Your task to perform on an android device: show emergency info Image 0: 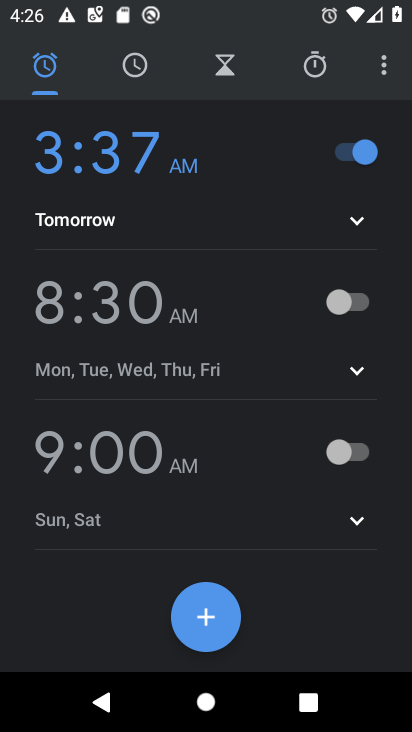
Step 0: press home button
Your task to perform on an android device: show emergency info Image 1: 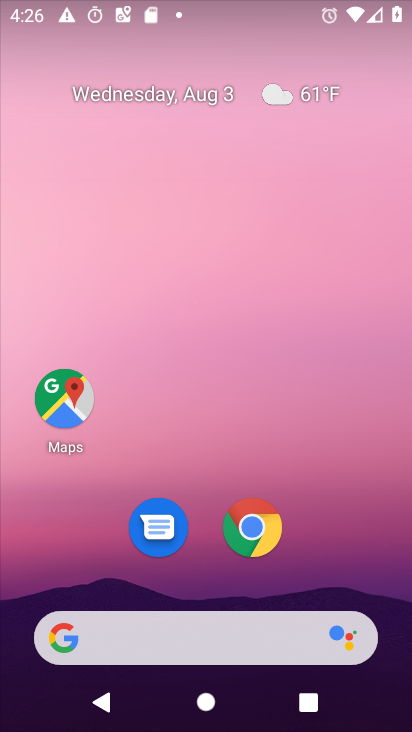
Step 1: drag from (343, 533) to (304, 66)
Your task to perform on an android device: show emergency info Image 2: 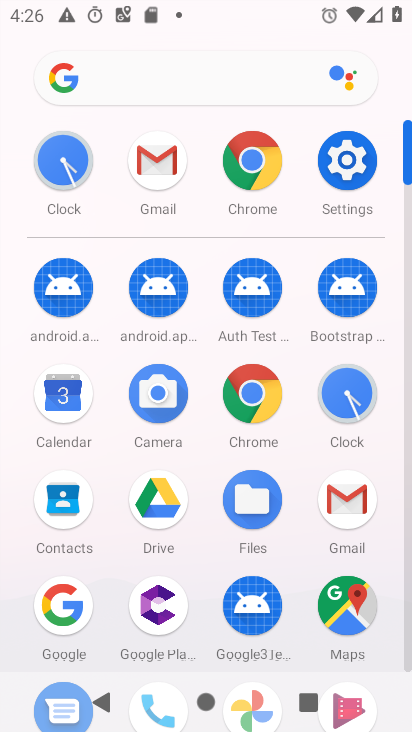
Step 2: click (358, 160)
Your task to perform on an android device: show emergency info Image 3: 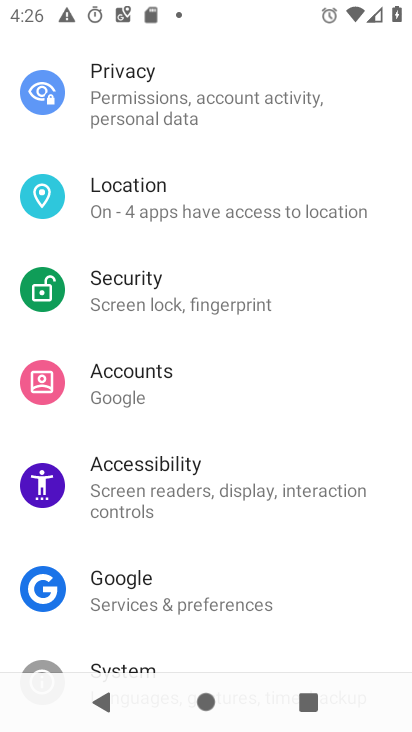
Step 3: drag from (312, 562) to (322, 73)
Your task to perform on an android device: show emergency info Image 4: 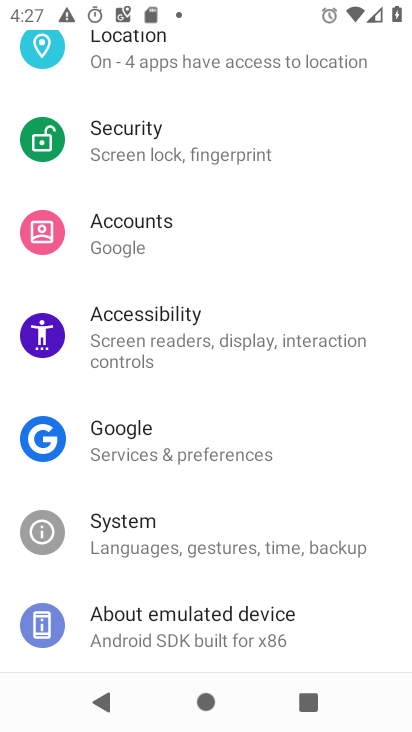
Step 4: click (197, 635)
Your task to perform on an android device: show emergency info Image 5: 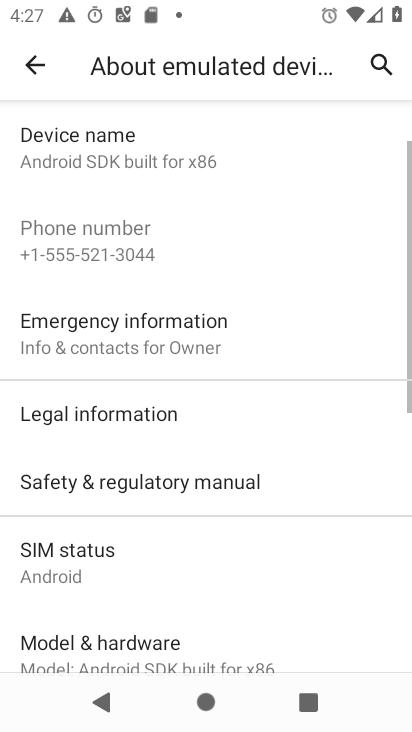
Step 5: click (175, 337)
Your task to perform on an android device: show emergency info Image 6: 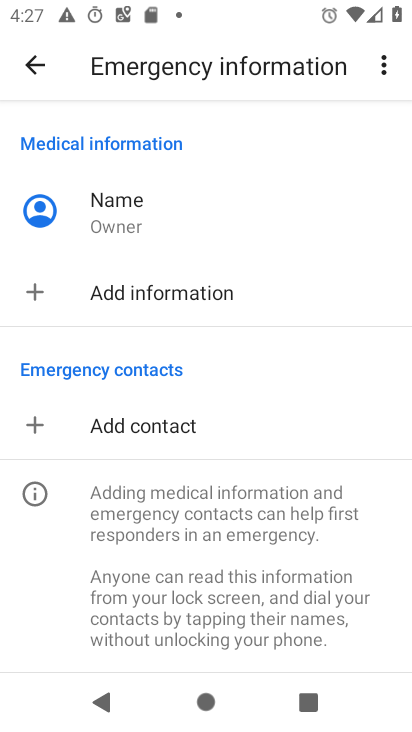
Step 6: task complete